Your task to perform on an android device: add a contact Image 0: 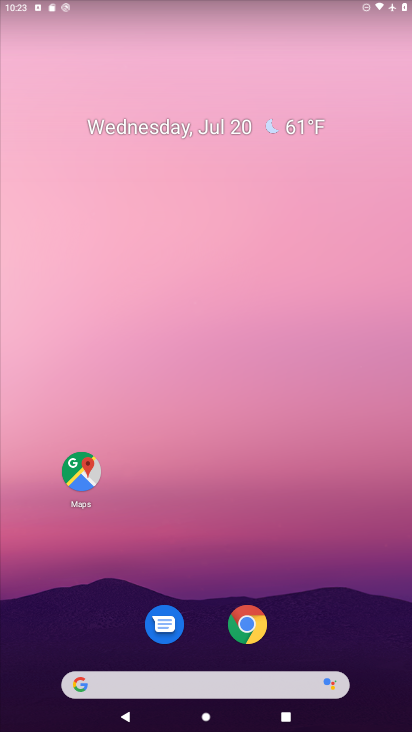
Step 0: drag from (205, 516) to (176, 197)
Your task to perform on an android device: add a contact Image 1: 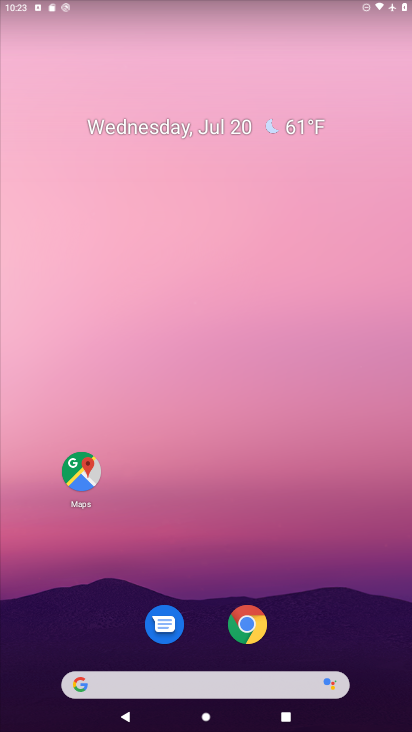
Step 1: drag from (210, 594) to (207, 190)
Your task to perform on an android device: add a contact Image 2: 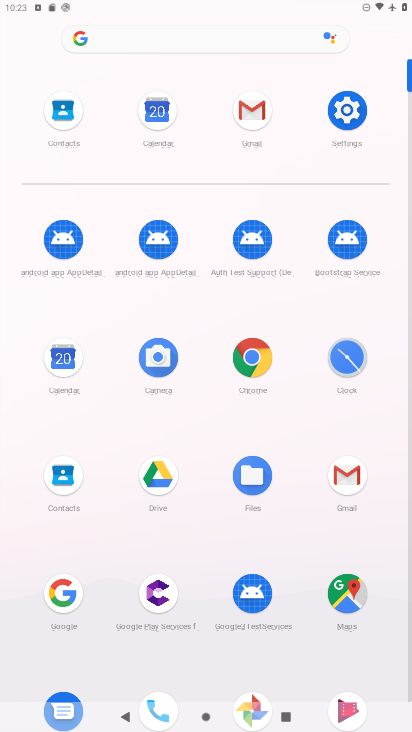
Step 2: click (69, 124)
Your task to perform on an android device: add a contact Image 3: 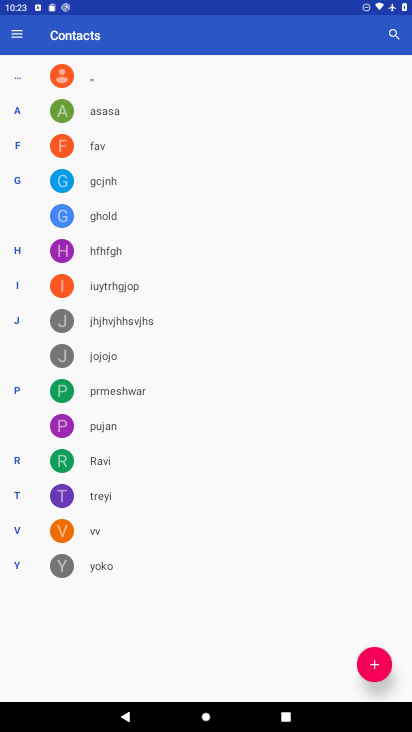
Step 3: click (377, 671)
Your task to perform on an android device: add a contact Image 4: 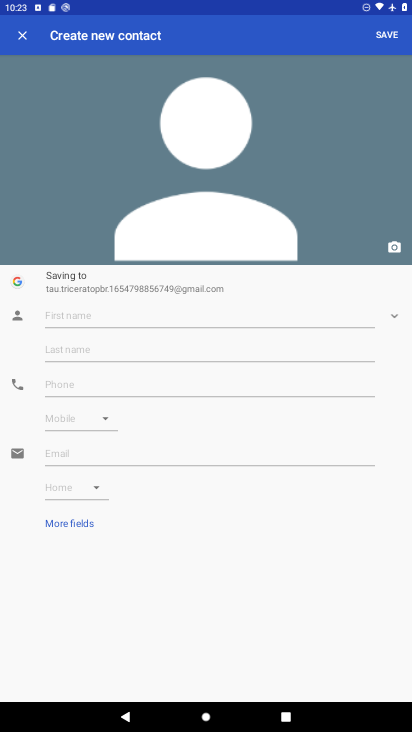
Step 4: click (97, 320)
Your task to perform on an android device: add a contact Image 5: 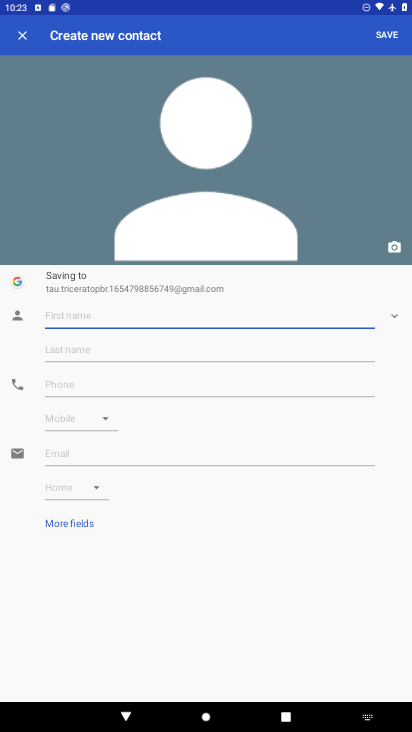
Step 5: type "hfhft"
Your task to perform on an android device: add a contact Image 6: 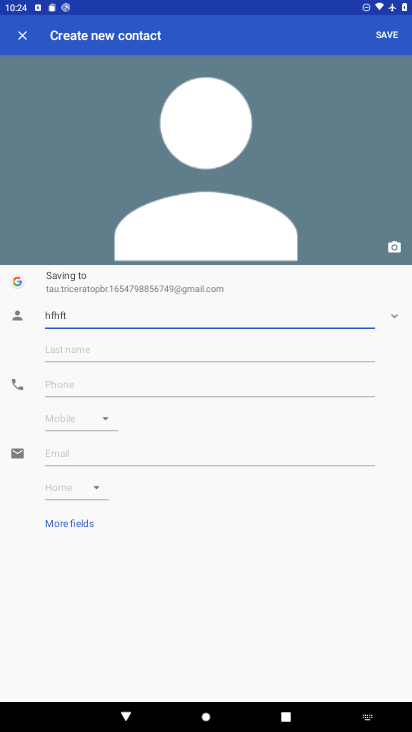
Step 6: click (81, 385)
Your task to perform on an android device: add a contact Image 7: 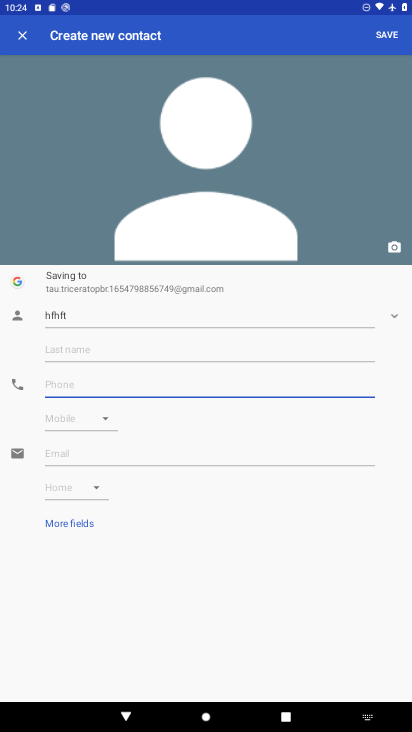
Step 7: type "75747575"
Your task to perform on an android device: add a contact Image 8: 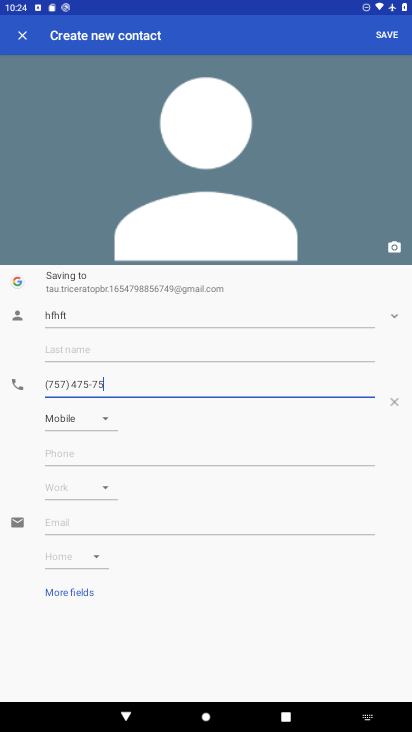
Step 8: click (394, 40)
Your task to perform on an android device: add a contact Image 9: 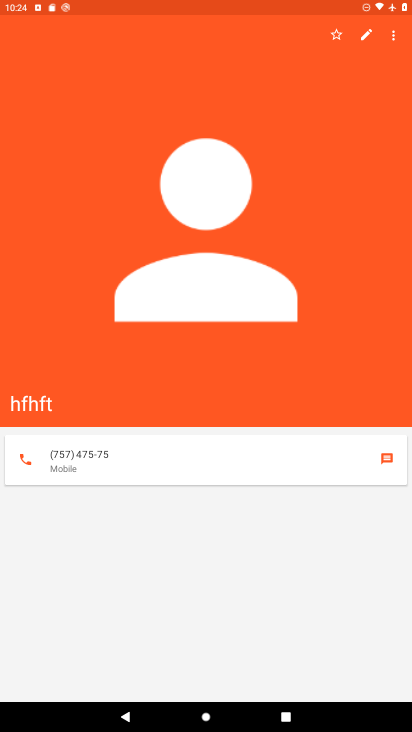
Step 9: task complete